Your task to perform on an android device: Turn off the flashlight Image 0: 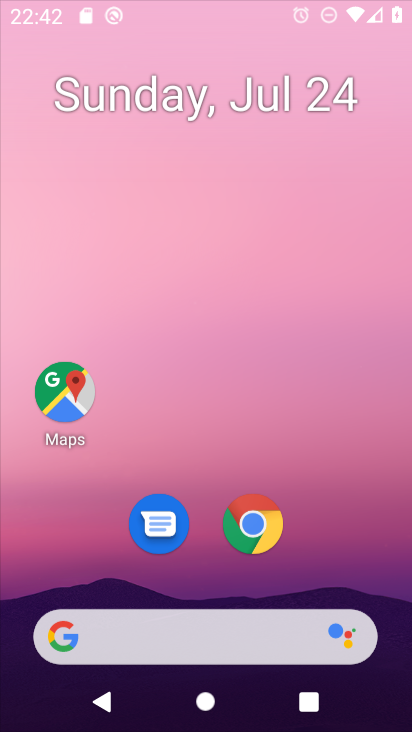
Step 0: press home button
Your task to perform on an android device: Turn off the flashlight Image 1: 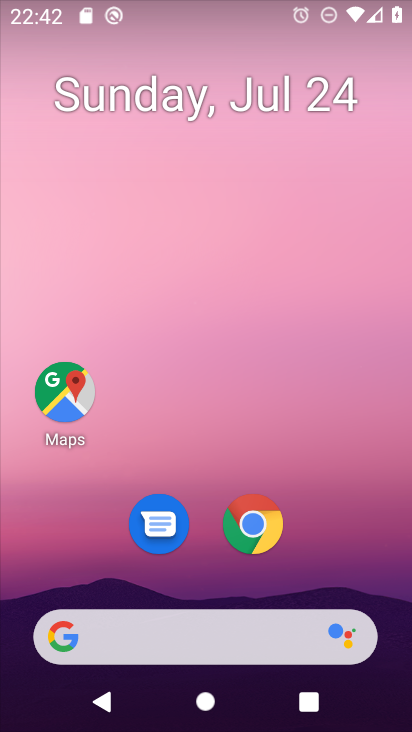
Step 1: task complete